Your task to perform on an android device: Go to eBay Image 0: 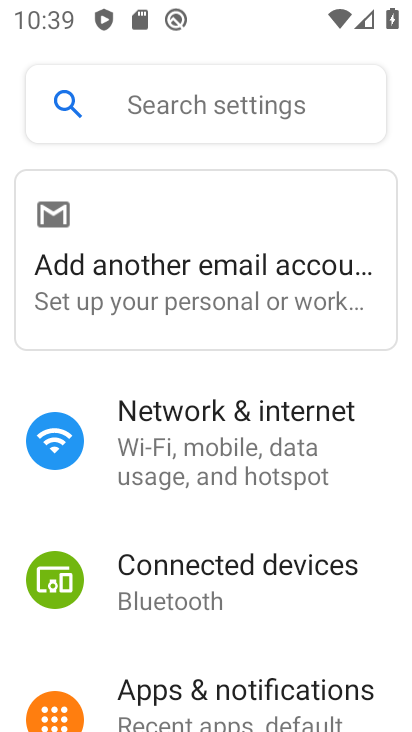
Step 0: press home button
Your task to perform on an android device: Go to eBay Image 1: 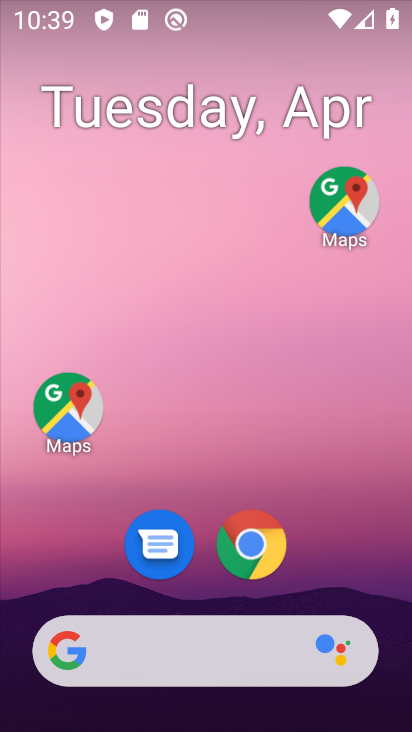
Step 1: click (250, 564)
Your task to perform on an android device: Go to eBay Image 2: 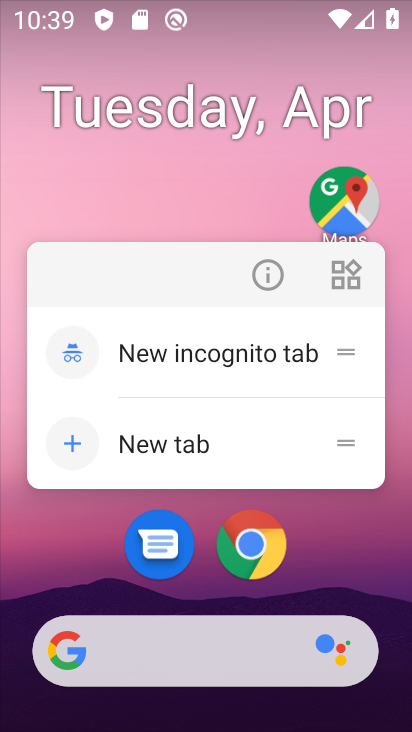
Step 2: click (250, 564)
Your task to perform on an android device: Go to eBay Image 3: 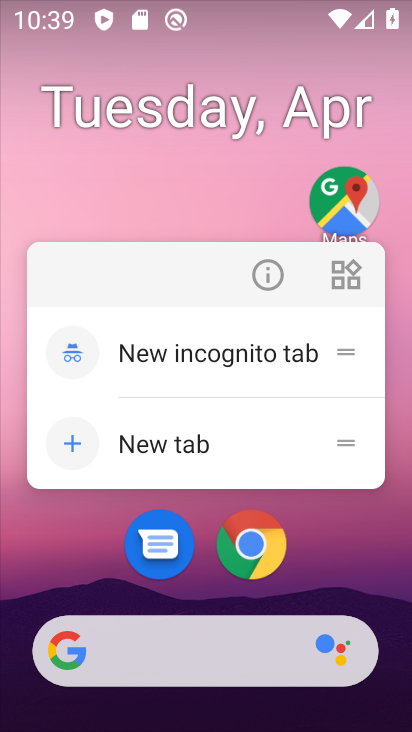
Step 3: click (252, 568)
Your task to perform on an android device: Go to eBay Image 4: 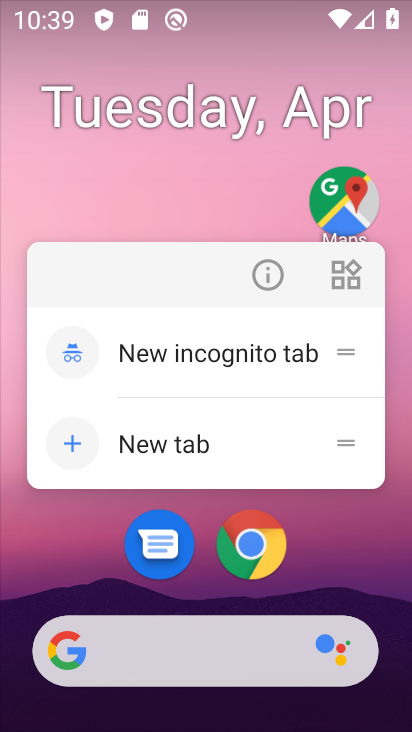
Step 4: click (269, 551)
Your task to perform on an android device: Go to eBay Image 5: 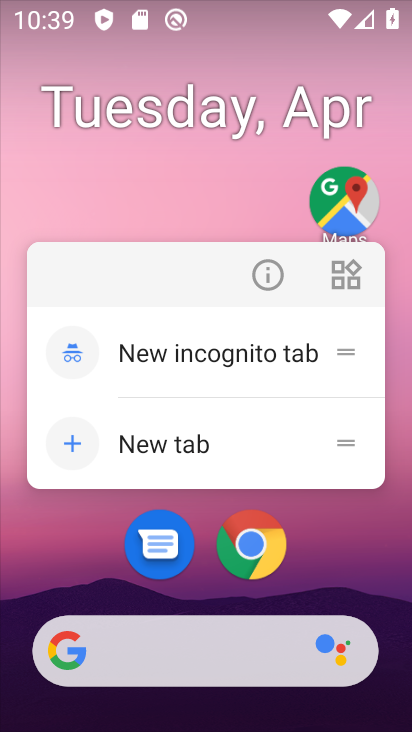
Step 5: click (264, 551)
Your task to perform on an android device: Go to eBay Image 6: 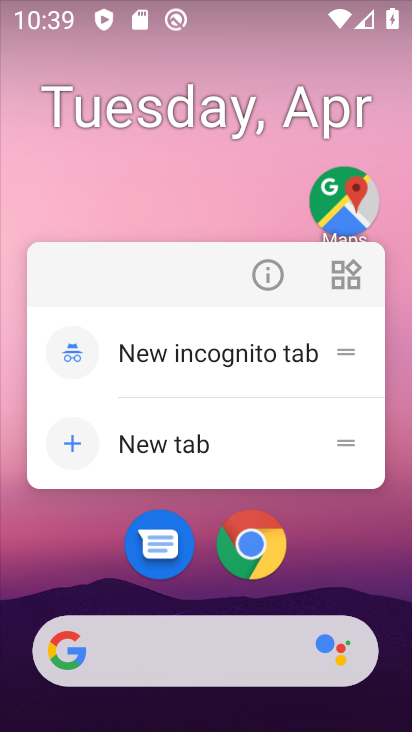
Step 6: click (266, 536)
Your task to perform on an android device: Go to eBay Image 7: 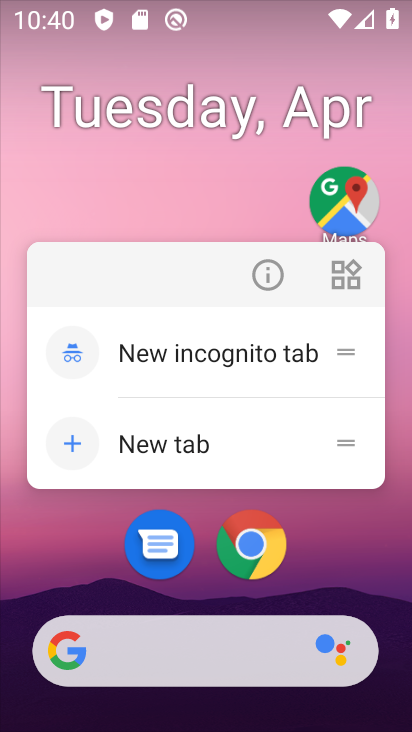
Step 7: click (263, 543)
Your task to perform on an android device: Go to eBay Image 8: 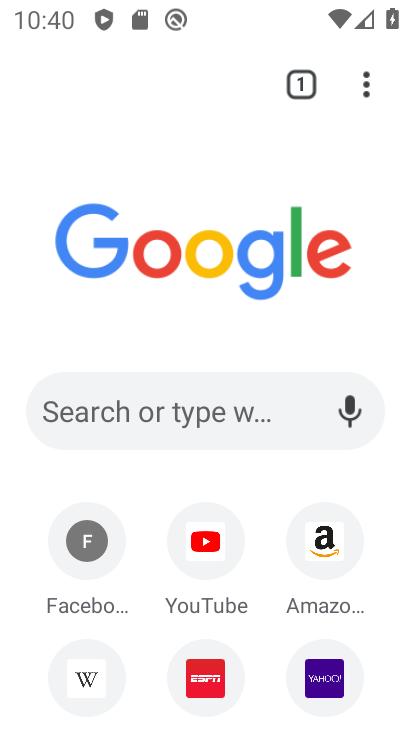
Step 8: click (209, 393)
Your task to perform on an android device: Go to eBay Image 9: 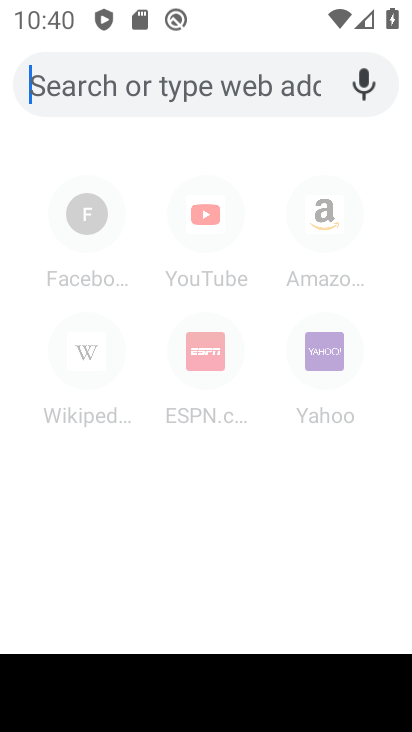
Step 9: type "ebay"
Your task to perform on an android device: Go to eBay Image 10: 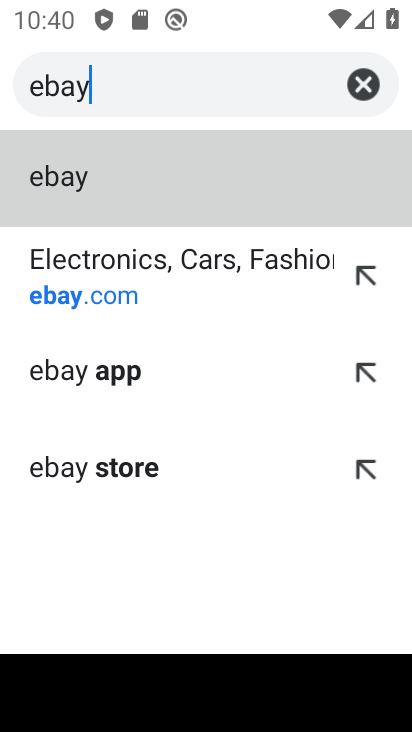
Step 10: click (54, 305)
Your task to perform on an android device: Go to eBay Image 11: 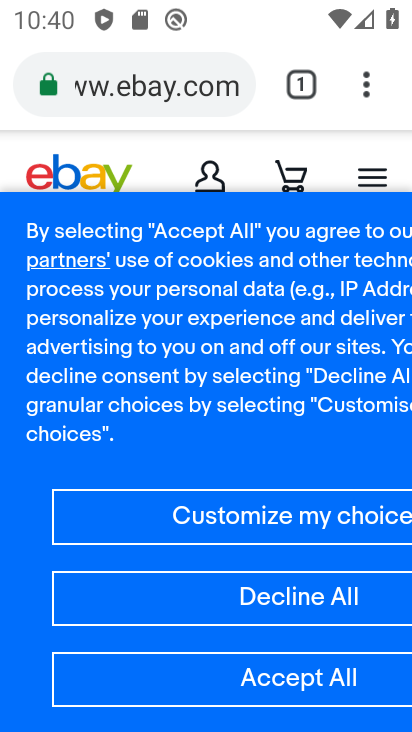
Step 11: task complete